Your task to perform on an android device: check google app version Image 0: 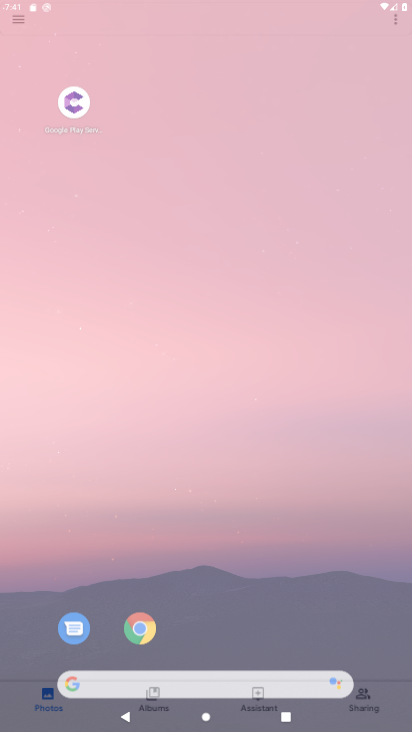
Step 0: click (297, 340)
Your task to perform on an android device: check google app version Image 1: 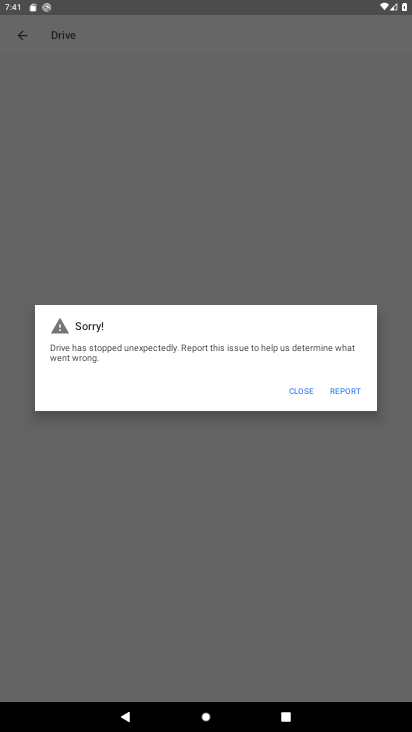
Step 1: press home button
Your task to perform on an android device: check google app version Image 2: 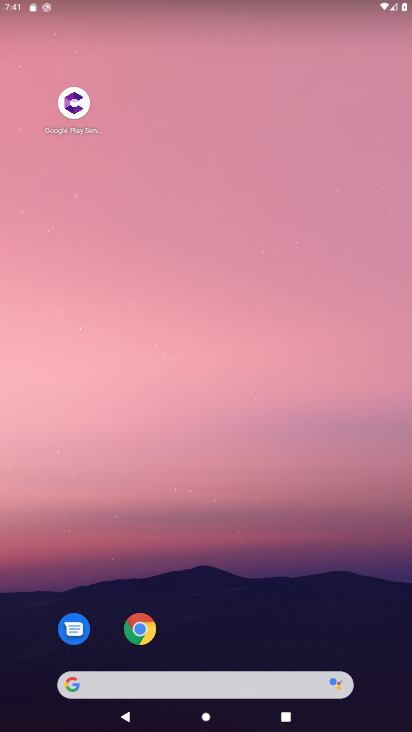
Step 2: drag from (350, 563) to (325, 134)
Your task to perform on an android device: check google app version Image 3: 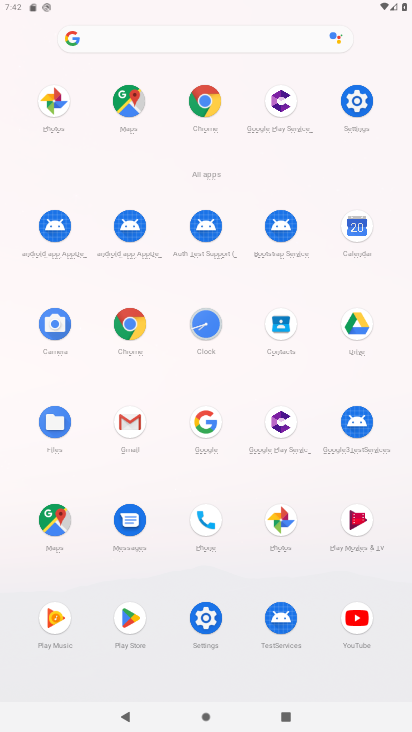
Step 3: click (203, 428)
Your task to perform on an android device: check google app version Image 4: 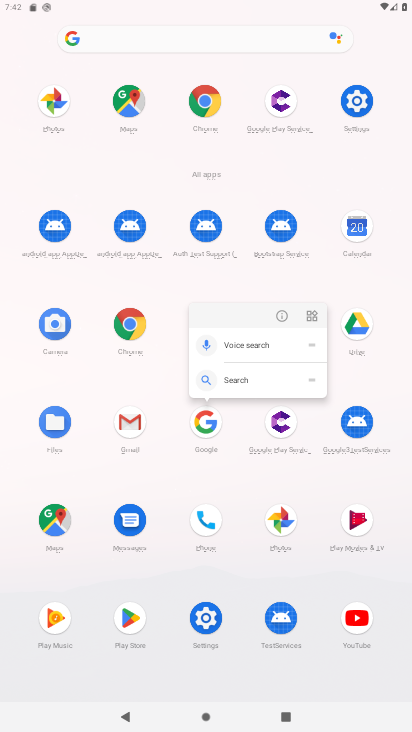
Step 4: click (279, 310)
Your task to perform on an android device: check google app version Image 5: 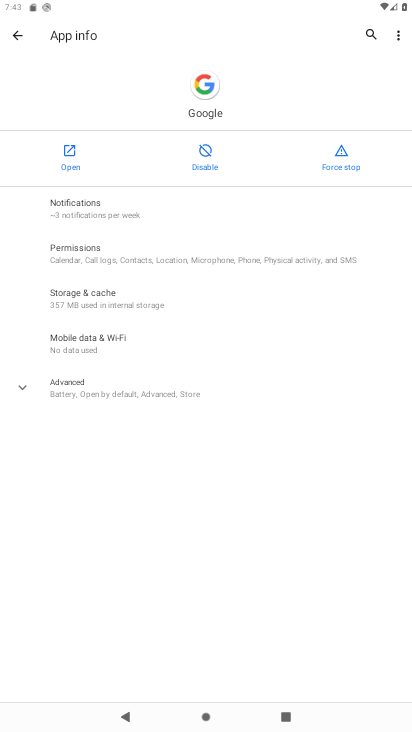
Step 5: click (140, 397)
Your task to perform on an android device: check google app version Image 6: 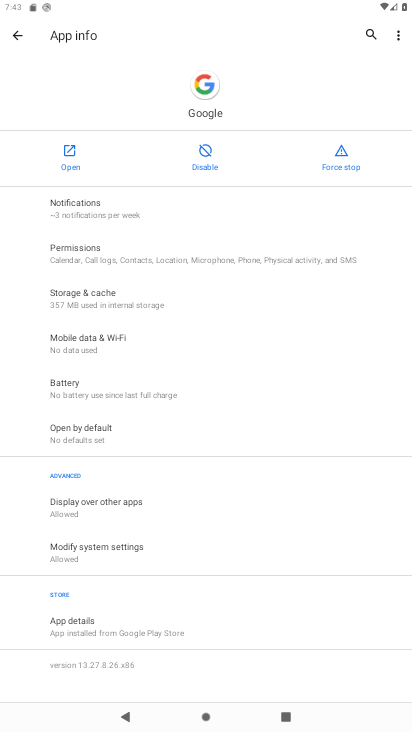
Step 6: task complete